Your task to perform on an android device: Go to privacy settings Image 0: 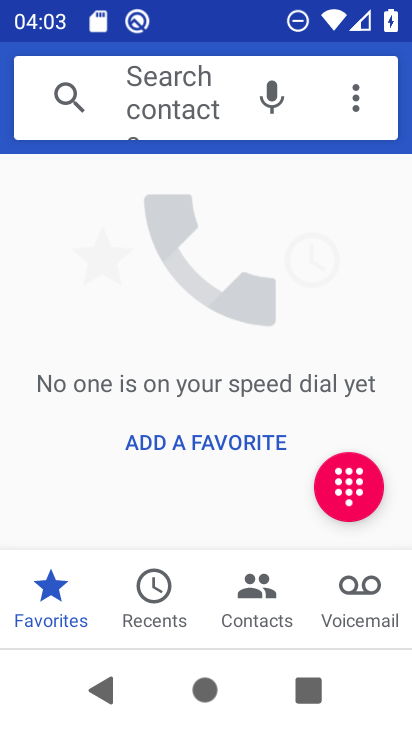
Step 0: press home button
Your task to perform on an android device: Go to privacy settings Image 1: 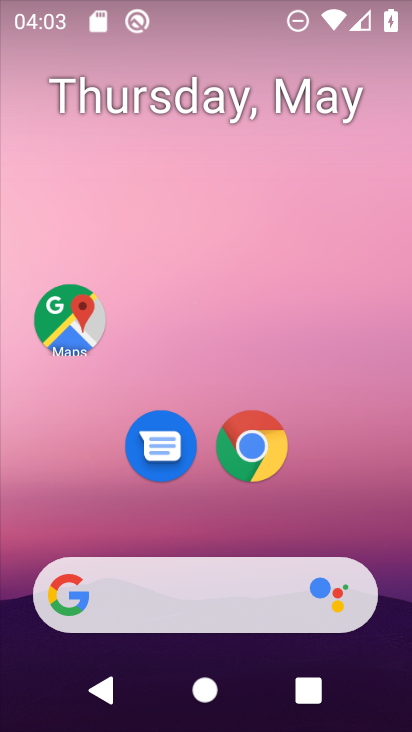
Step 1: drag from (346, 549) to (344, 6)
Your task to perform on an android device: Go to privacy settings Image 2: 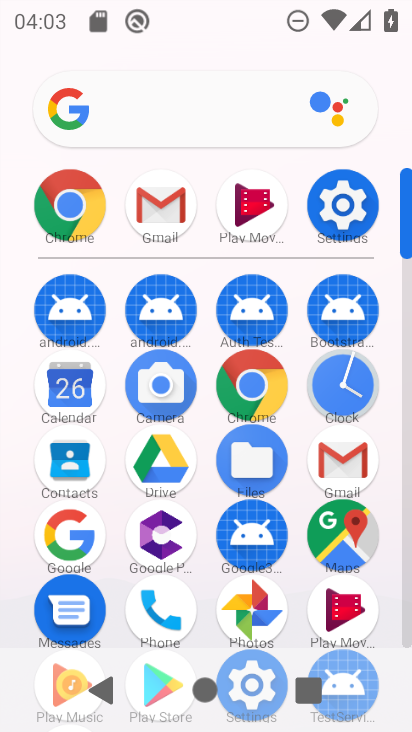
Step 2: click (341, 209)
Your task to perform on an android device: Go to privacy settings Image 3: 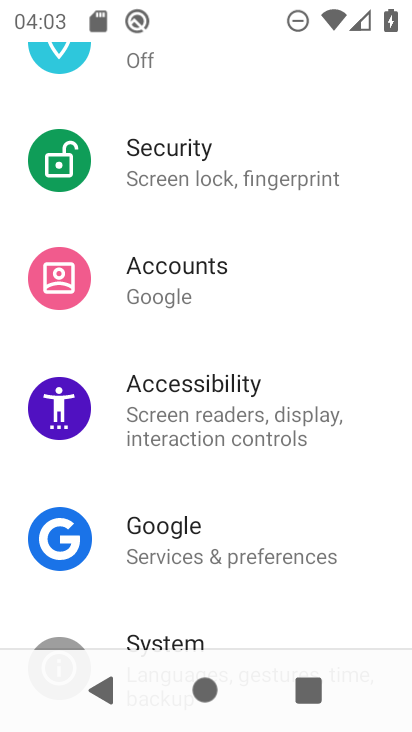
Step 3: drag from (294, 248) to (311, 498)
Your task to perform on an android device: Go to privacy settings Image 4: 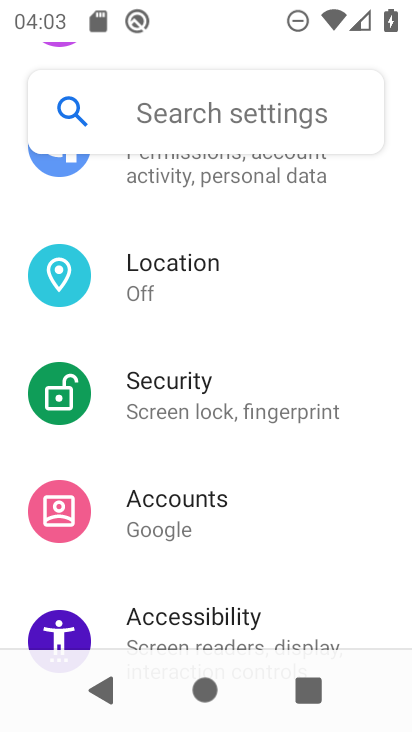
Step 4: drag from (252, 247) to (262, 489)
Your task to perform on an android device: Go to privacy settings Image 5: 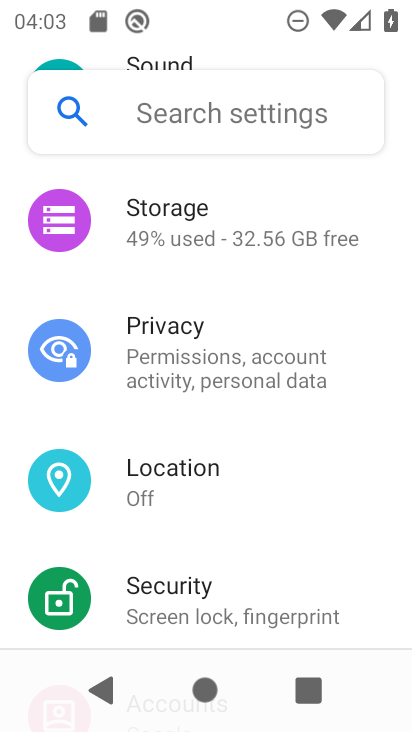
Step 5: click (167, 352)
Your task to perform on an android device: Go to privacy settings Image 6: 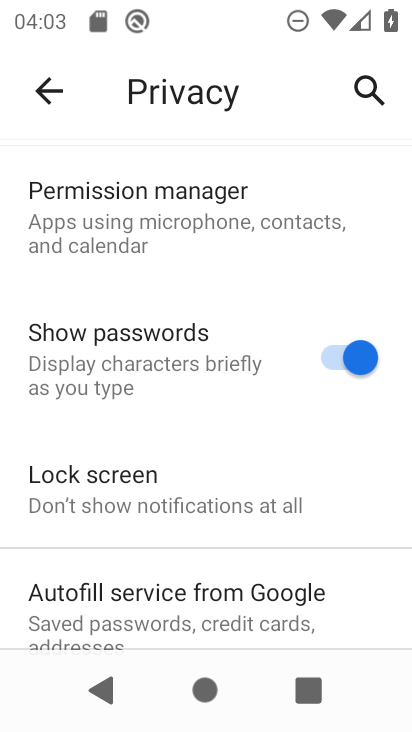
Step 6: task complete